Your task to perform on an android device: turn on data saver in the chrome app Image 0: 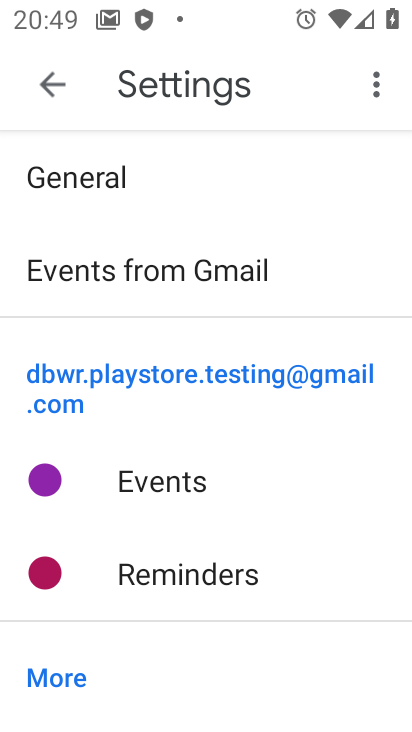
Step 0: press home button
Your task to perform on an android device: turn on data saver in the chrome app Image 1: 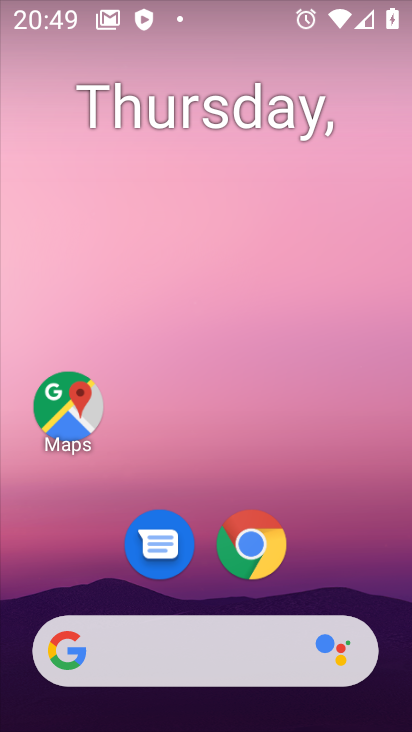
Step 1: click (249, 538)
Your task to perform on an android device: turn on data saver in the chrome app Image 2: 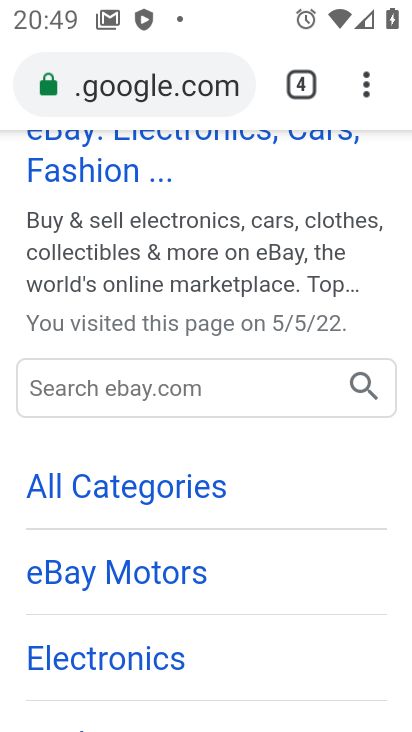
Step 2: click (357, 66)
Your task to perform on an android device: turn on data saver in the chrome app Image 3: 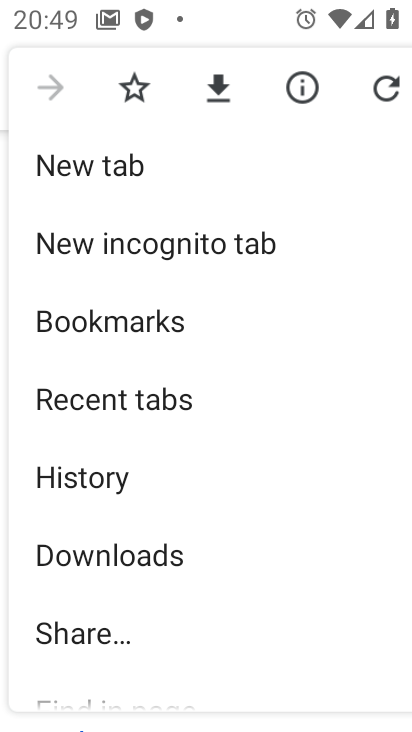
Step 3: drag from (77, 605) to (223, 109)
Your task to perform on an android device: turn on data saver in the chrome app Image 4: 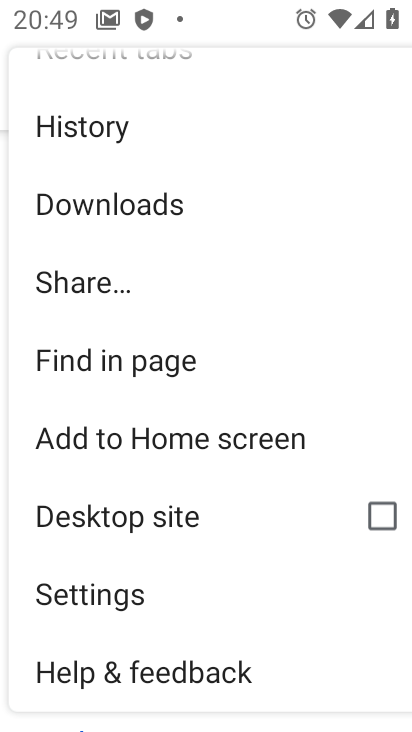
Step 4: click (150, 591)
Your task to perform on an android device: turn on data saver in the chrome app Image 5: 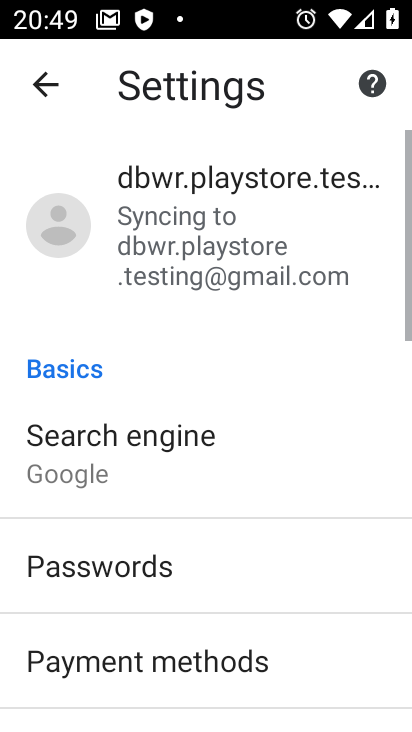
Step 5: drag from (150, 591) to (255, 76)
Your task to perform on an android device: turn on data saver in the chrome app Image 6: 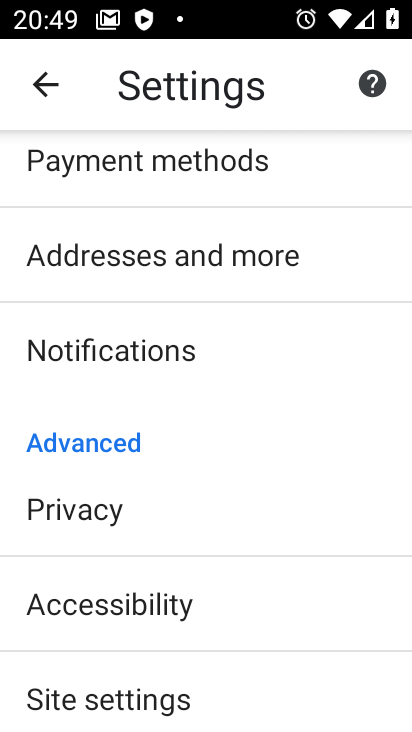
Step 6: drag from (88, 651) to (163, 291)
Your task to perform on an android device: turn on data saver in the chrome app Image 7: 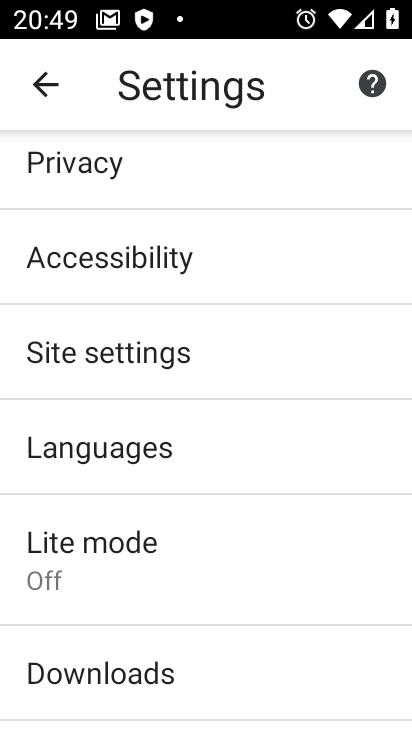
Step 7: click (110, 366)
Your task to perform on an android device: turn on data saver in the chrome app Image 8: 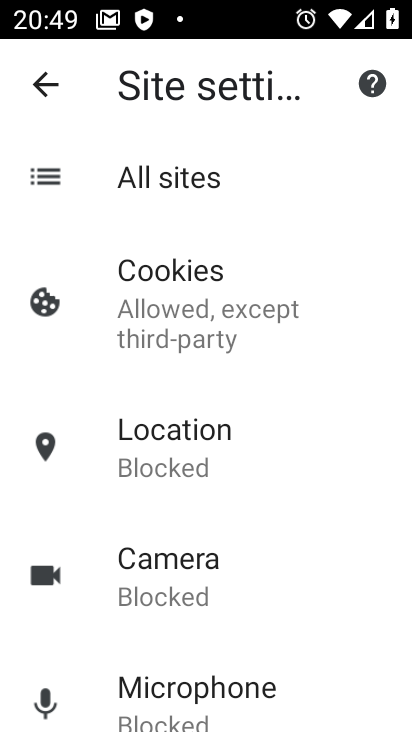
Step 8: drag from (31, 647) to (209, 124)
Your task to perform on an android device: turn on data saver in the chrome app Image 9: 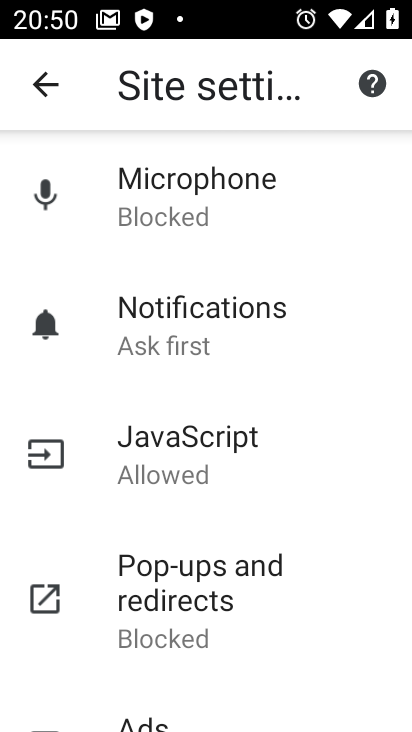
Step 9: drag from (97, 245) to (79, 728)
Your task to perform on an android device: turn on data saver in the chrome app Image 10: 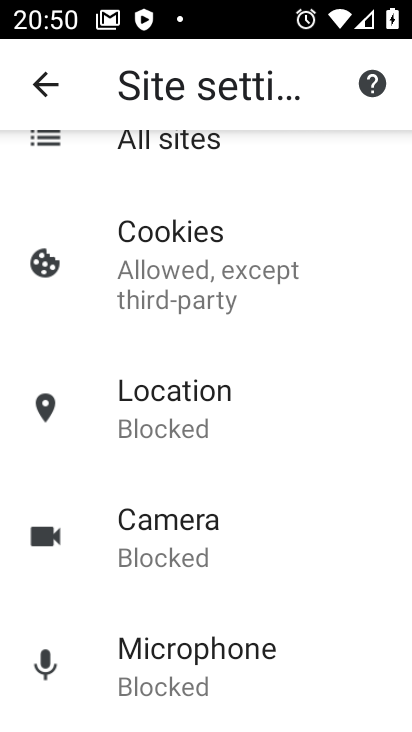
Step 10: click (44, 67)
Your task to perform on an android device: turn on data saver in the chrome app Image 11: 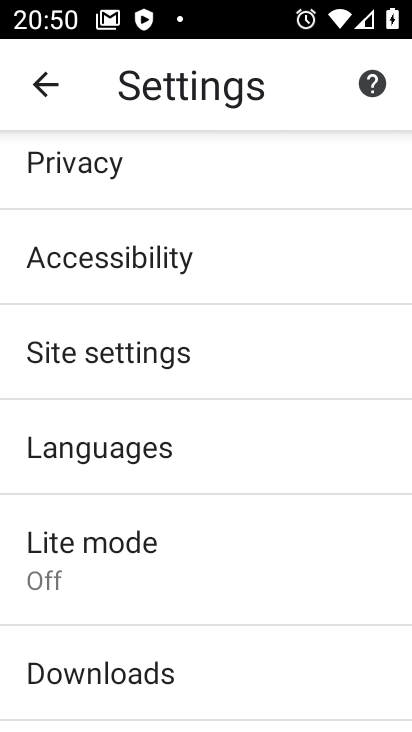
Step 11: click (177, 561)
Your task to perform on an android device: turn on data saver in the chrome app Image 12: 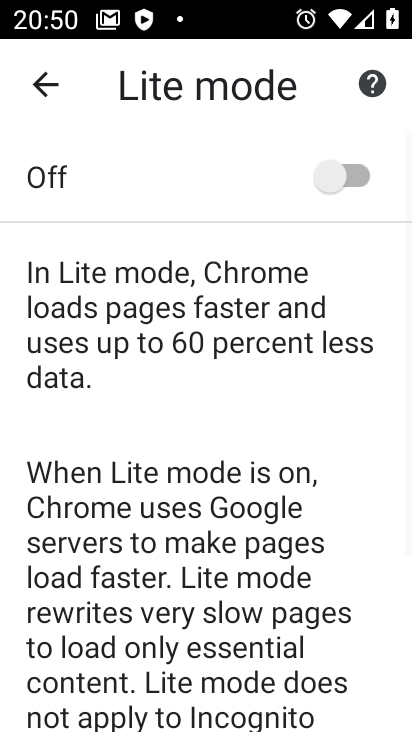
Step 12: click (356, 182)
Your task to perform on an android device: turn on data saver in the chrome app Image 13: 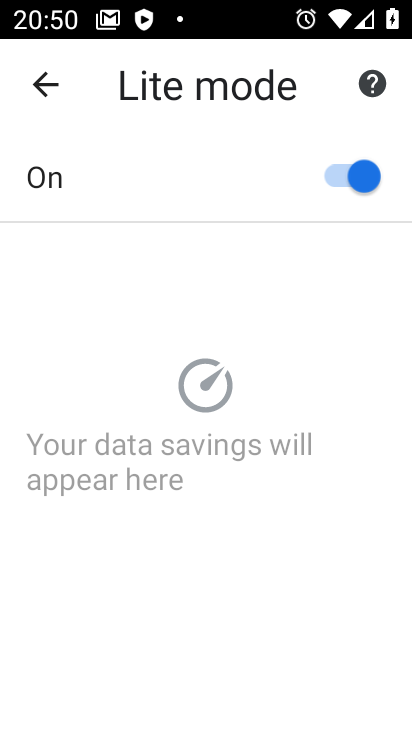
Step 13: task complete